Your task to perform on an android device: Add razer blade to the cart on ebay.com Image 0: 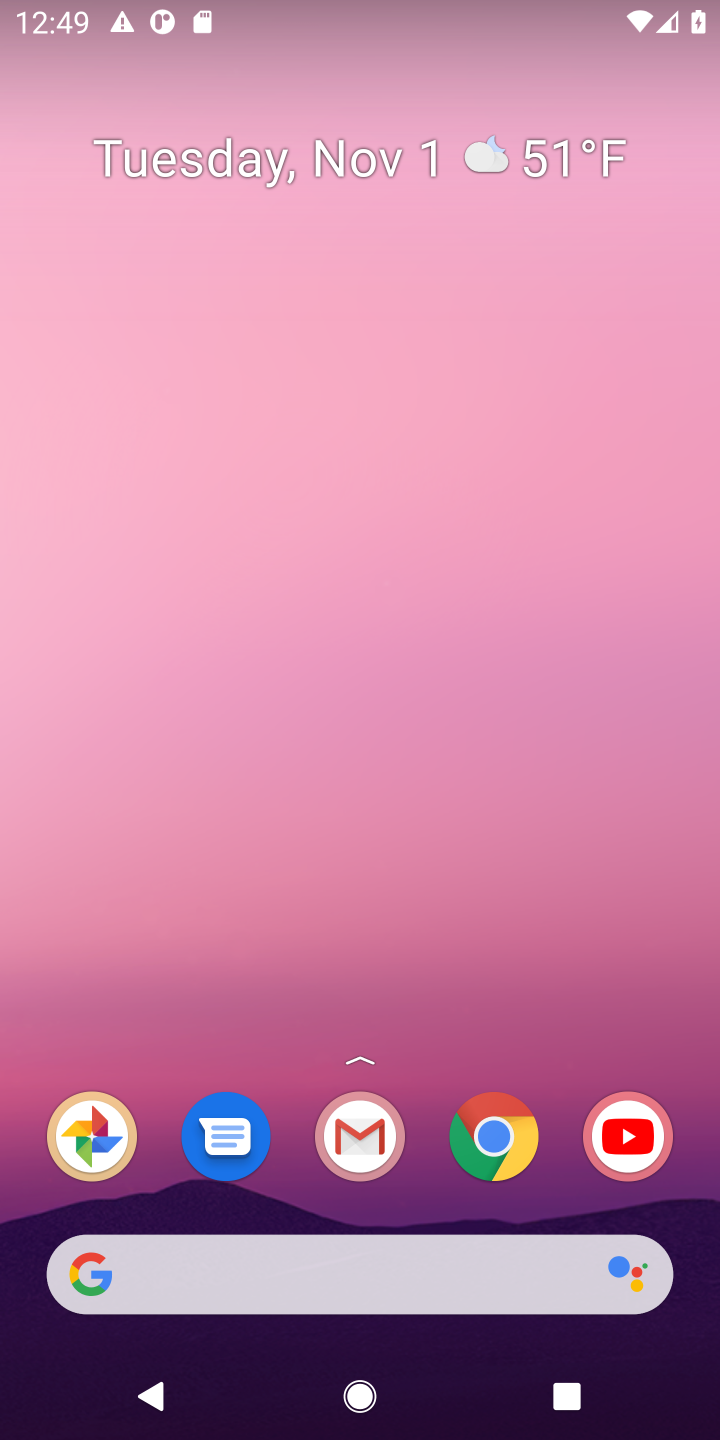
Step 0: press home button
Your task to perform on an android device: Add razer blade to the cart on ebay.com Image 1: 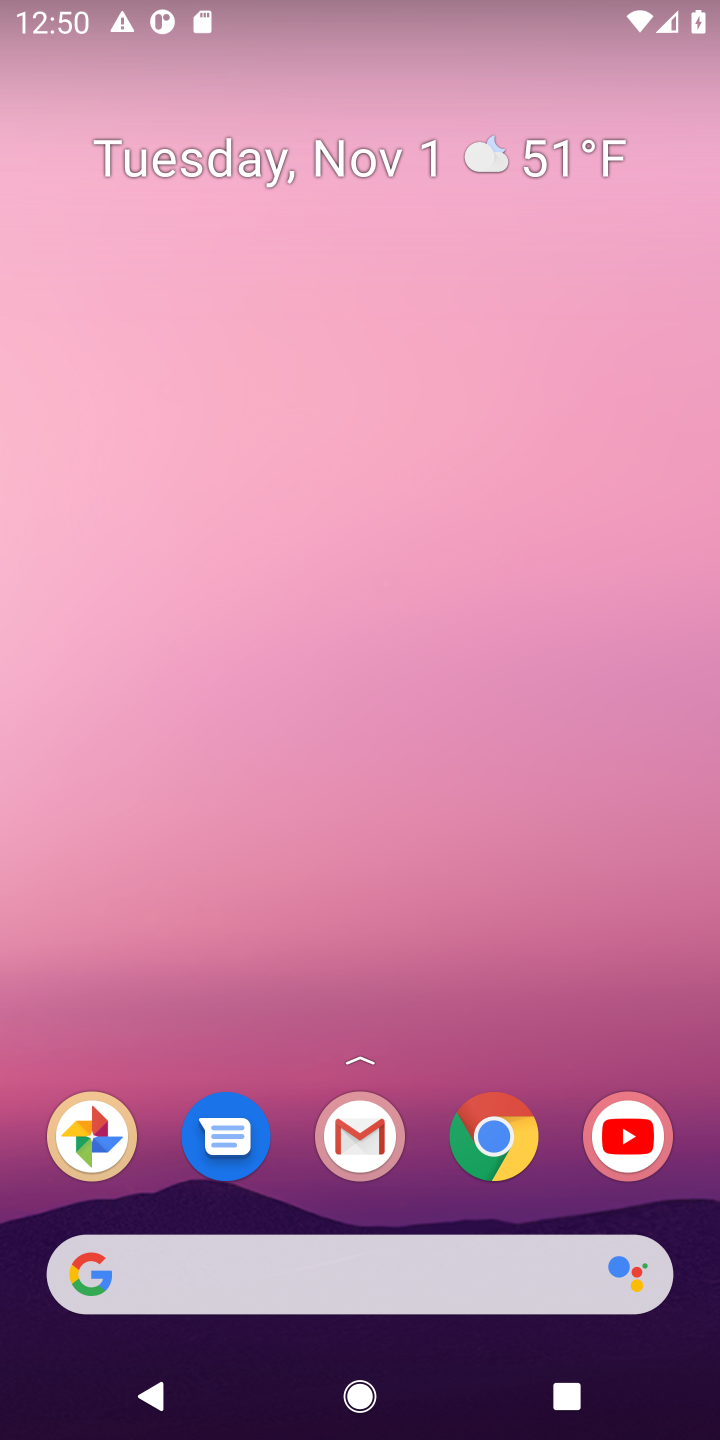
Step 1: click (132, 1277)
Your task to perform on an android device: Add razer blade to the cart on ebay.com Image 2: 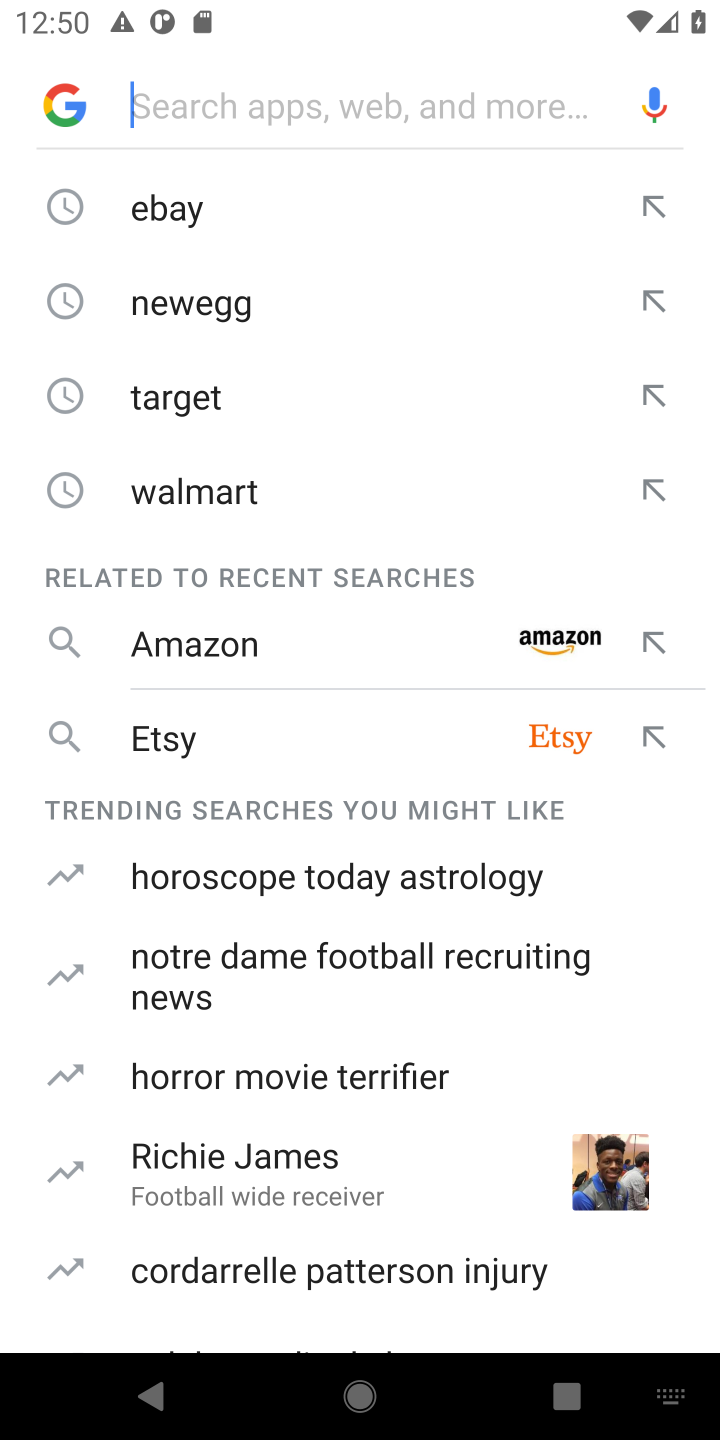
Step 2: type " ebay.com"
Your task to perform on an android device: Add razer blade to the cart on ebay.com Image 3: 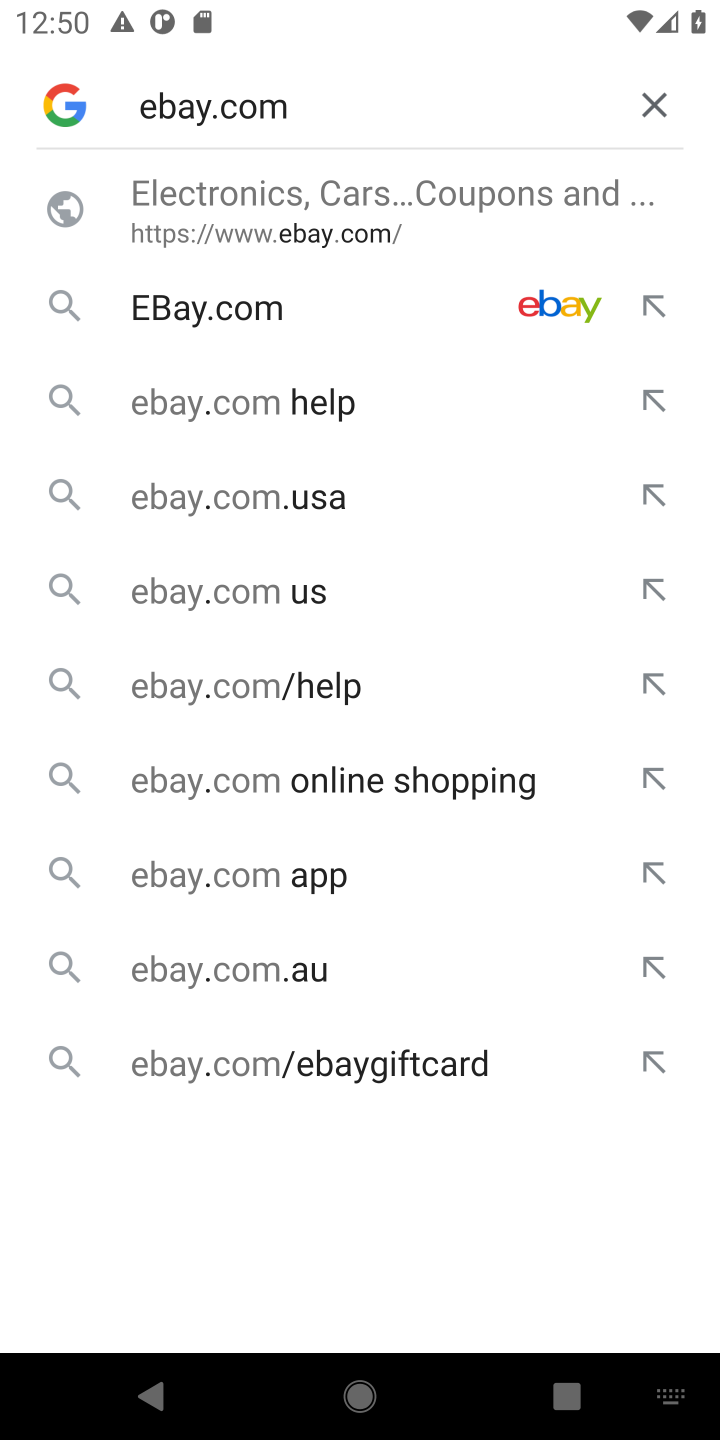
Step 3: press enter
Your task to perform on an android device: Add razer blade to the cart on ebay.com Image 4: 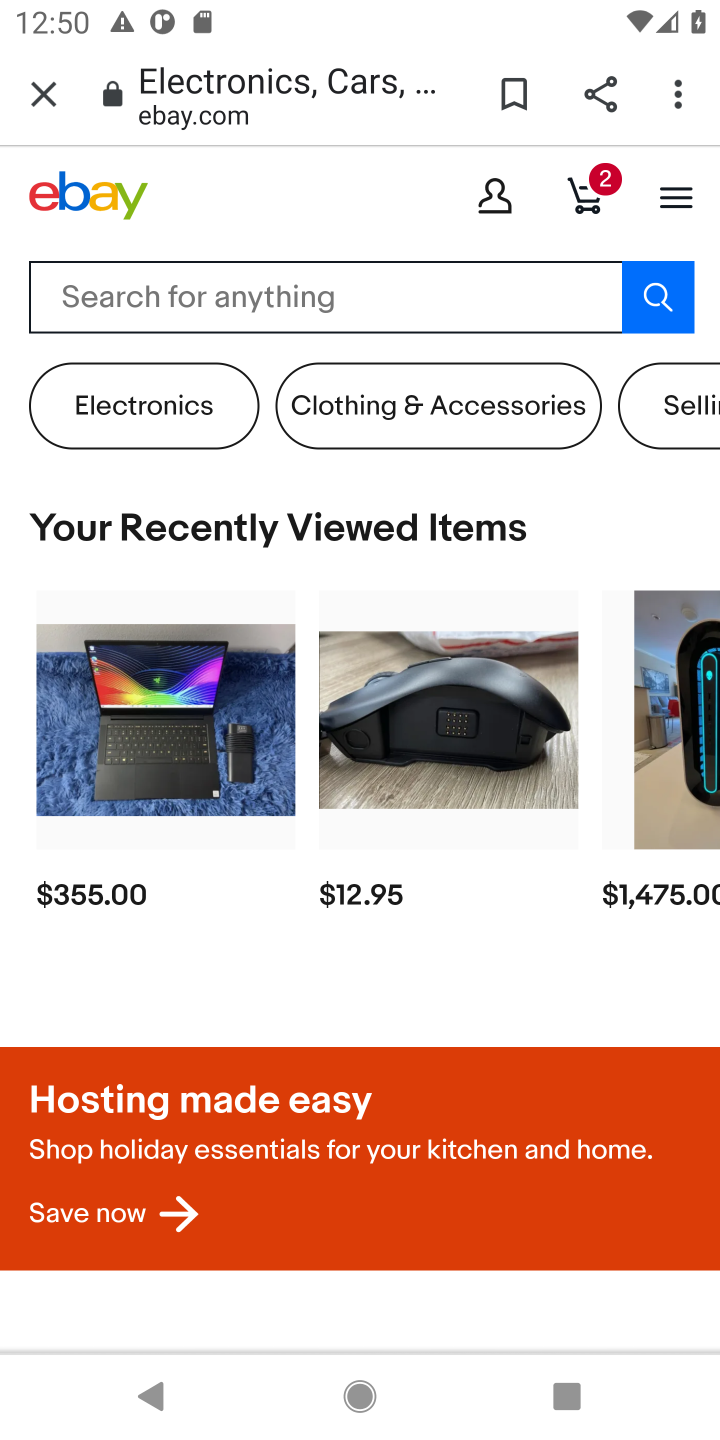
Step 4: click (220, 296)
Your task to perform on an android device: Add razer blade to the cart on ebay.com Image 5: 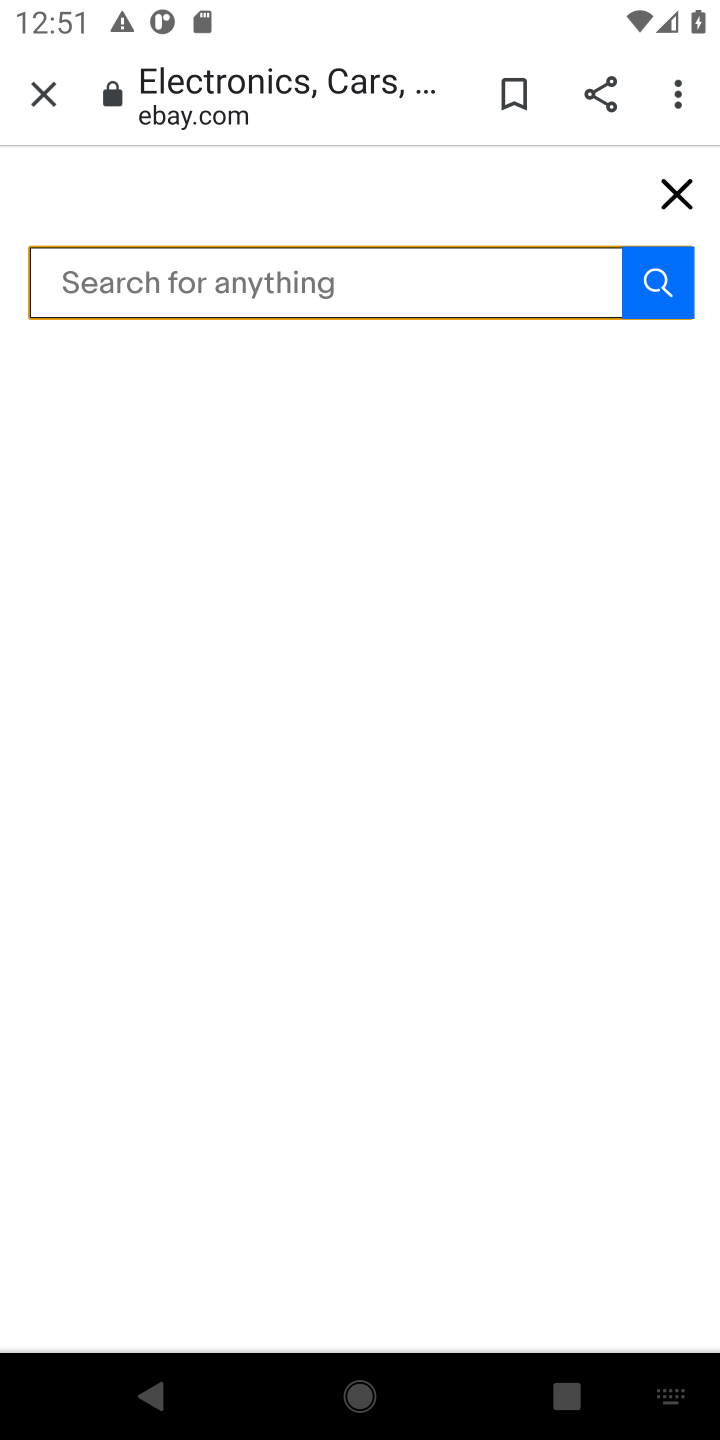
Step 5: type "razer blade"
Your task to perform on an android device: Add razer blade to the cart on ebay.com Image 6: 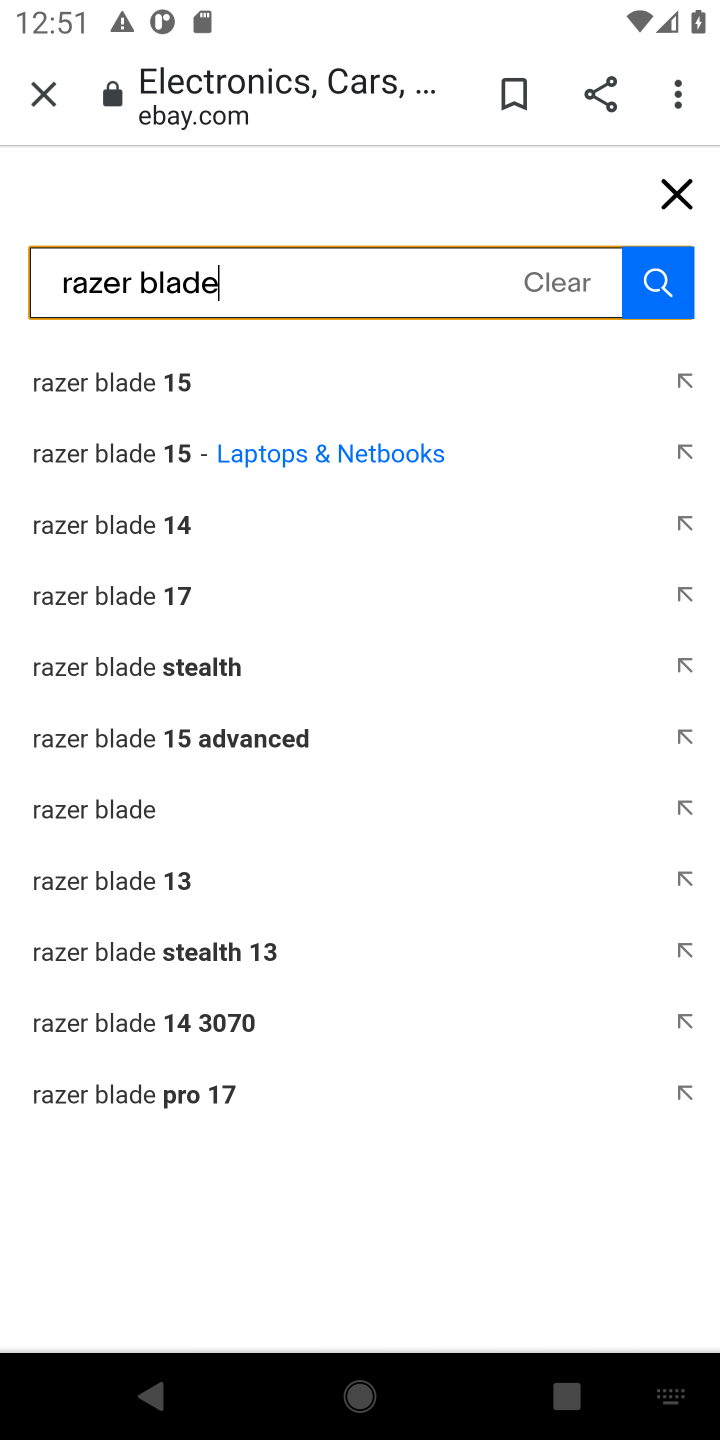
Step 6: click (654, 276)
Your task to perform on an android device: Add razer blade to the cart on ebay.com Image 7: 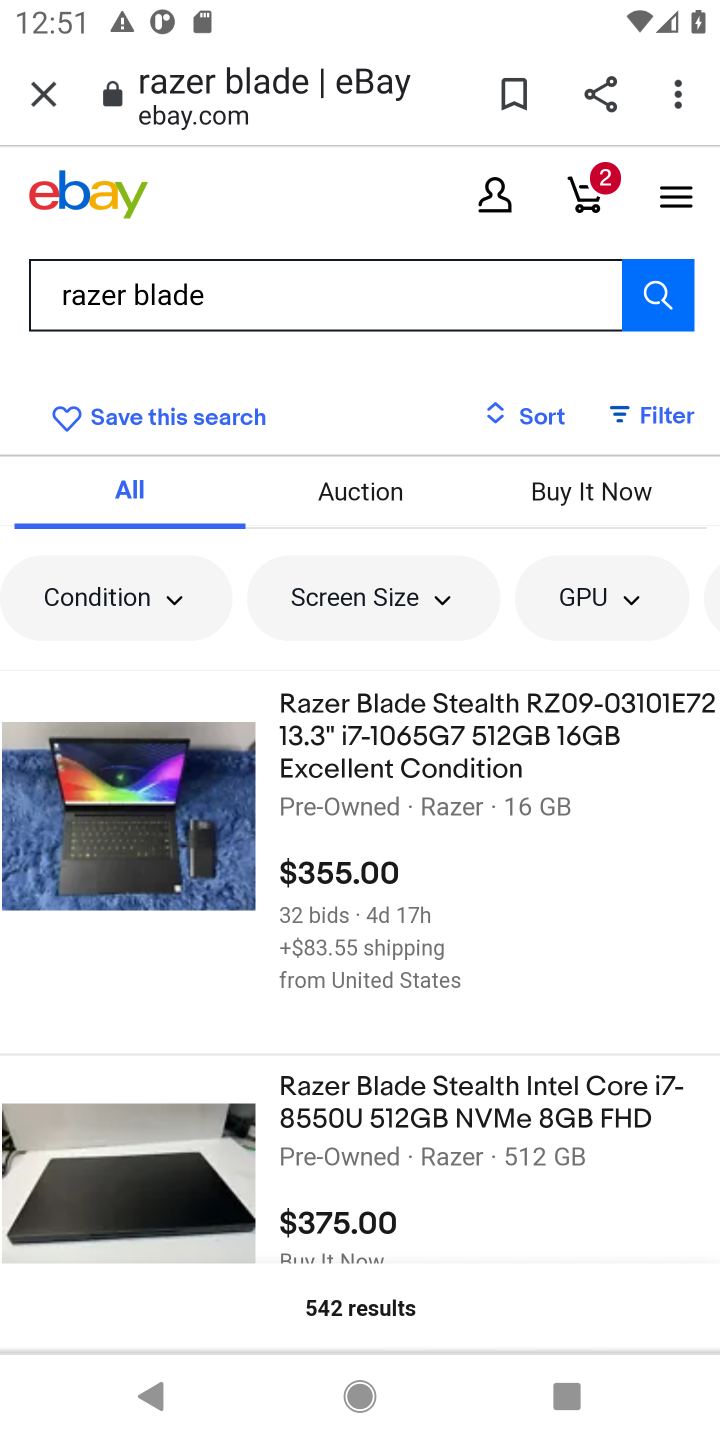
Step 7: drag from (484, 1053) to (484, 694)
Your task to perform on an android device: Add razer blade to the cart on ebay.com Image 8: 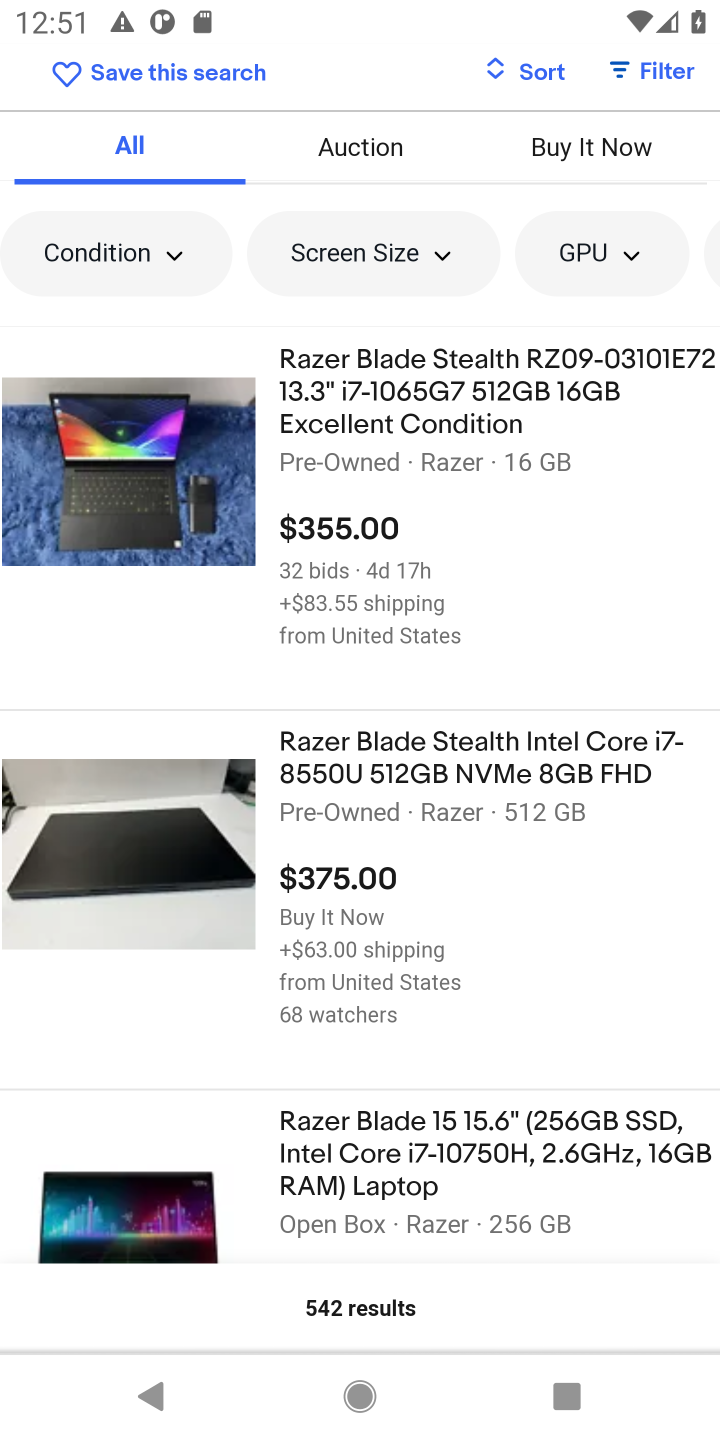
Step 8: click (442, 384)
Your task to perform on an android device: Add razer blade to the cart on ebay.com Image 9: 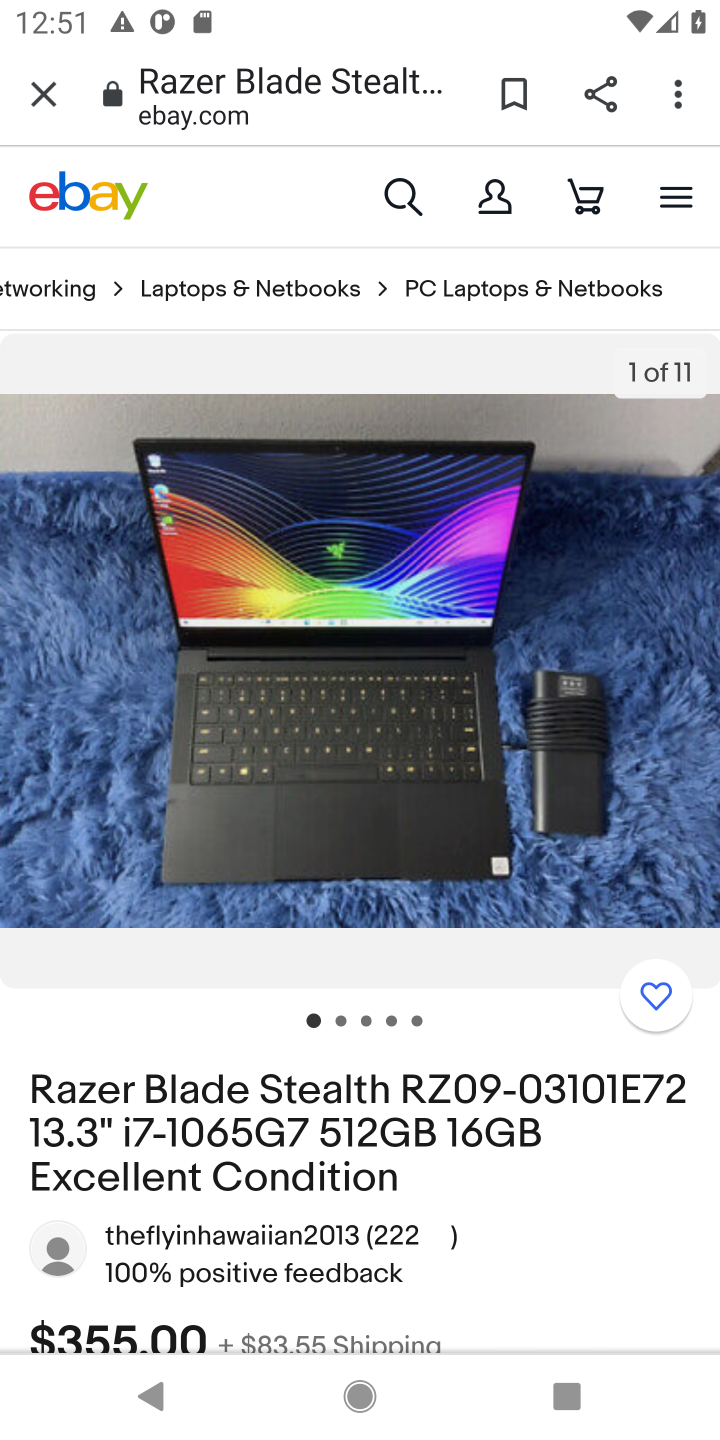
Step 9: drag from (467, 1096) to (459, 499)
Your task to perform on an android device: Add razer blade to the cart on ebay.com Image 10: 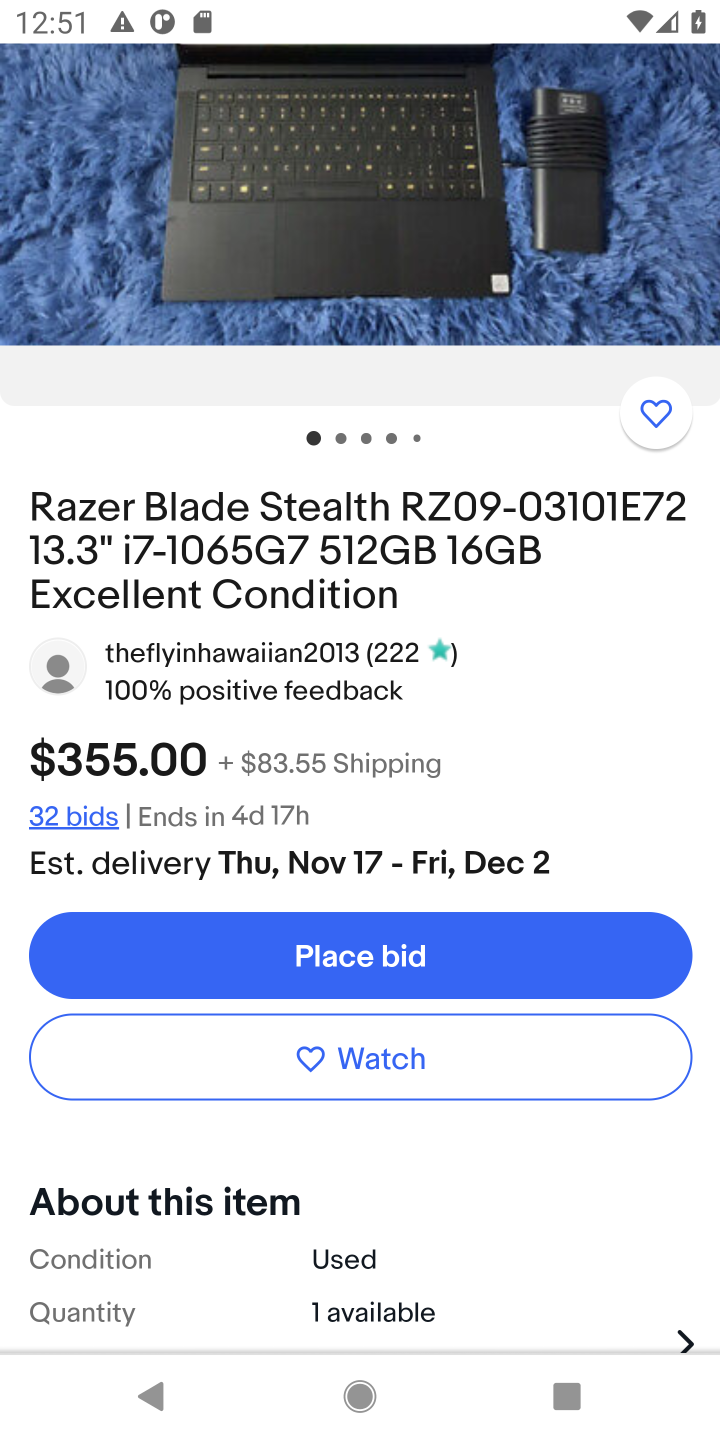
Step 10: click (359, 965)
Your task to perform on an android device: Add razer blade to the cart on ebay.com Image 11: 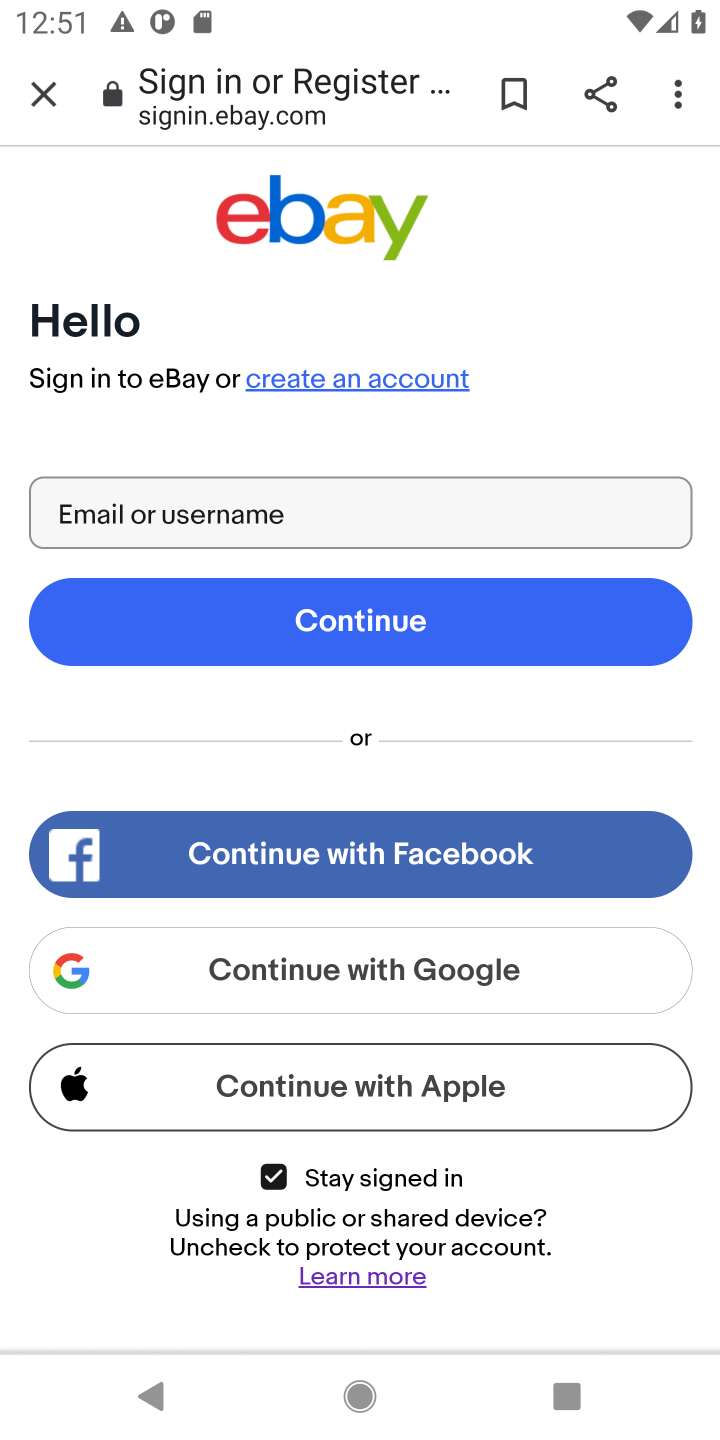
Step 11: task complete